Your task to perform on an android device: find snoozed emails in the gmail app Image 0: 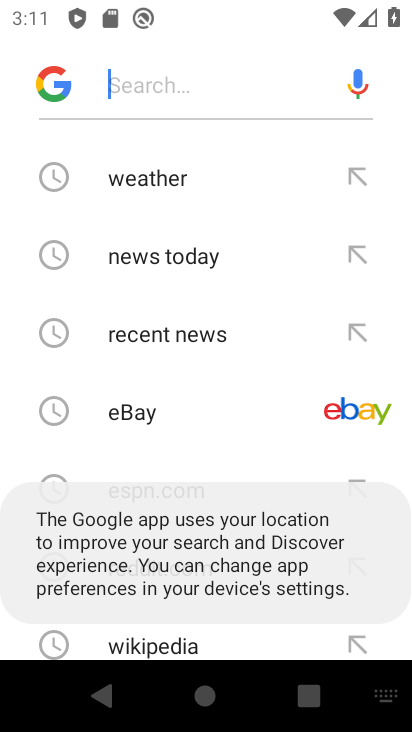
Step 0: press home button
Your task to perform on an android device: find snoozed emails in the gmail app Image 1: 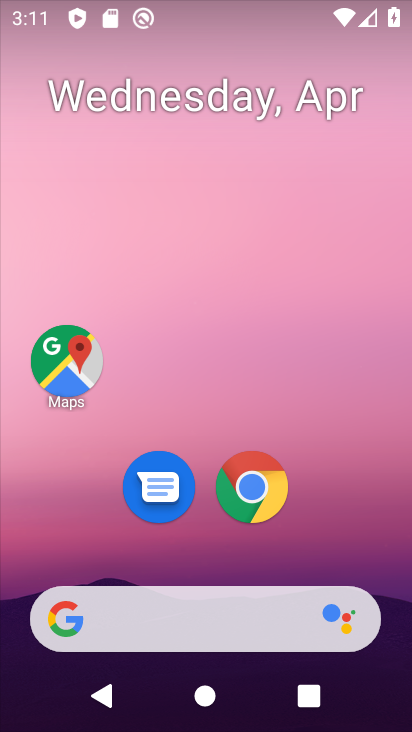
Step 1: drag from (343, 413) to (324, 115)
Your task to perform on an android device: find snoozed emails in the gmail app Image 2: 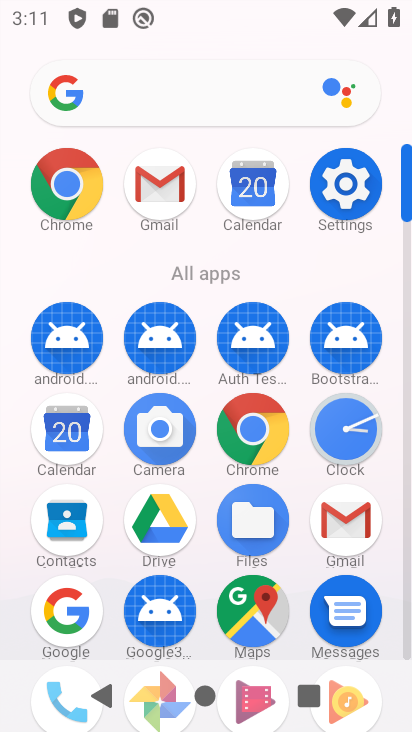
Step 2: click (351, 541)
Your task to perform on an android device: find snoozed emails in the gmail app Image 3: 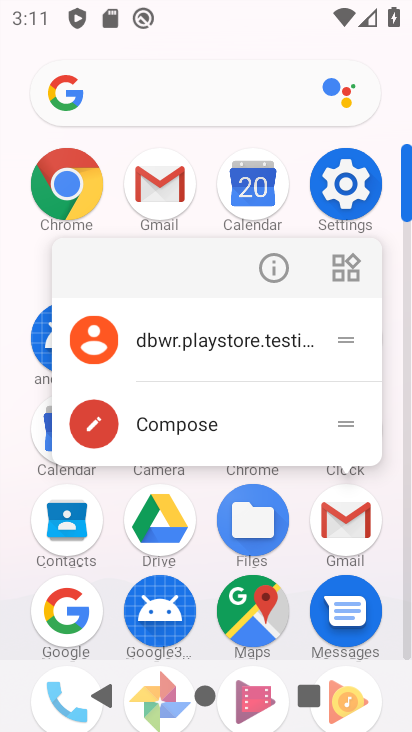
Step 3: click (355, 513)
Your task to perform on an android device: find snoozed emails in the gmail app Image 4: 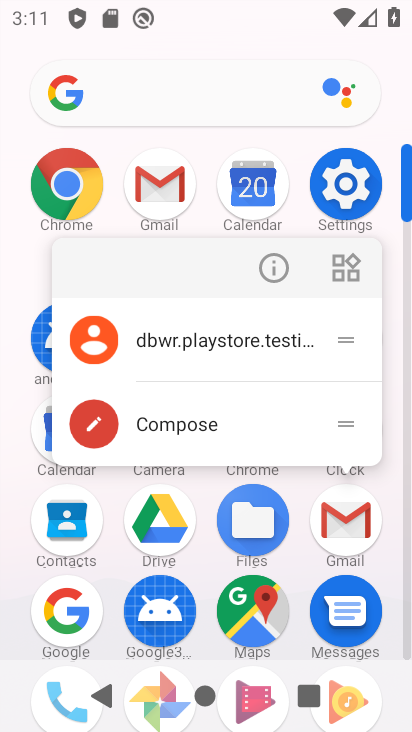
Step 4: click (350, 508)
Your task to perform on an android device: find snoozed emails in the gmail app Image 5: 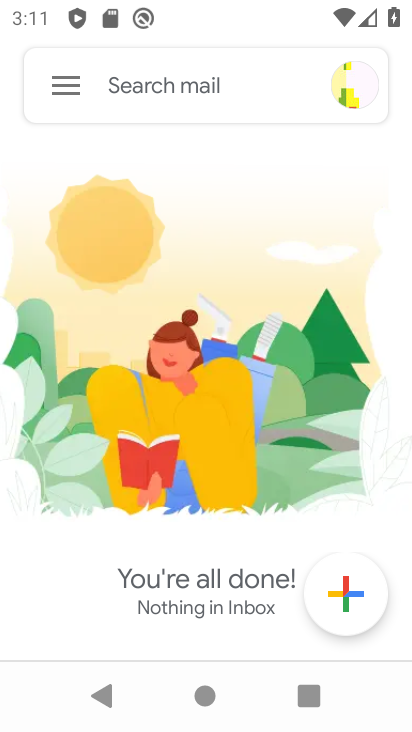
Step 5: click (73, 80)
Your task to perform on an android device: find snoozed emails in the gmail app Image 6: 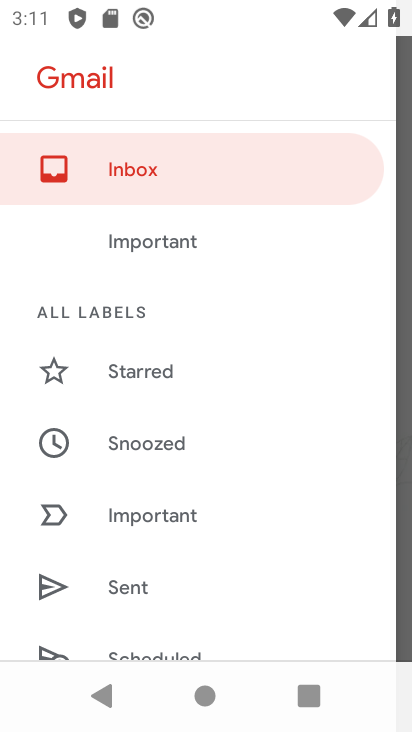
Step 6: drag from (263, 553) to (247, 301)
Your task to perform on an android device: find snoozed emails in the gmail app Image 7: 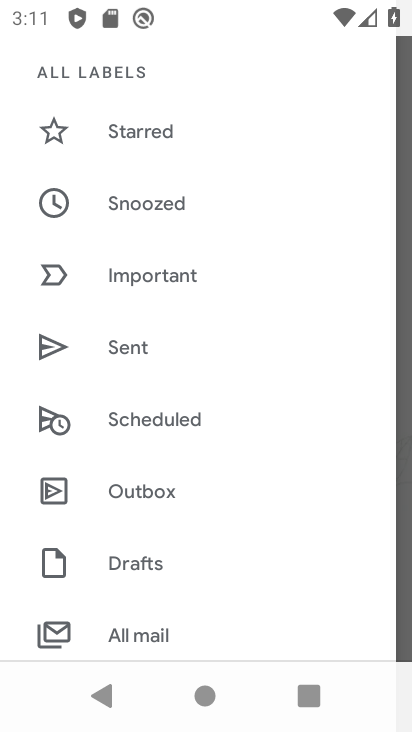
Step 7: click (137, 636)
Your task to perform on an android device: find snoozed emails in the gmail app Image 8: 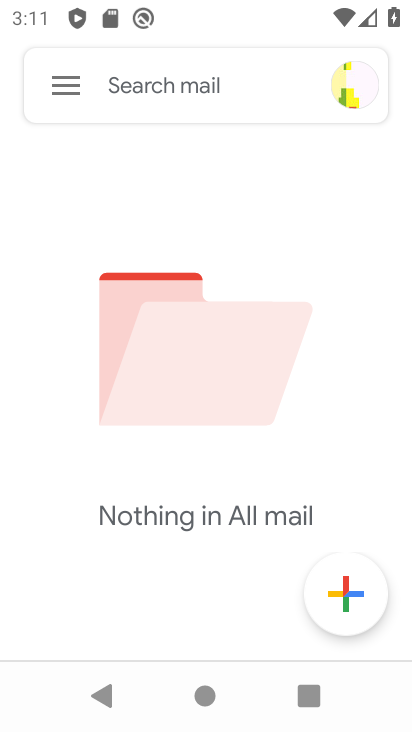
Step 8: task complete